Your task to perform on an android device: Open calendar and show me the second week of next month Image 0: 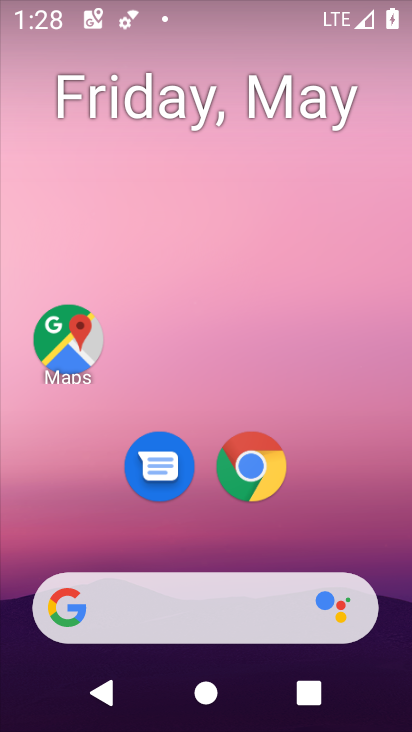
Step 0: drag from (365, 501) to (393, 3)
Your task to perform on an android device: Open calendar and show me the second week of next month Image 1: 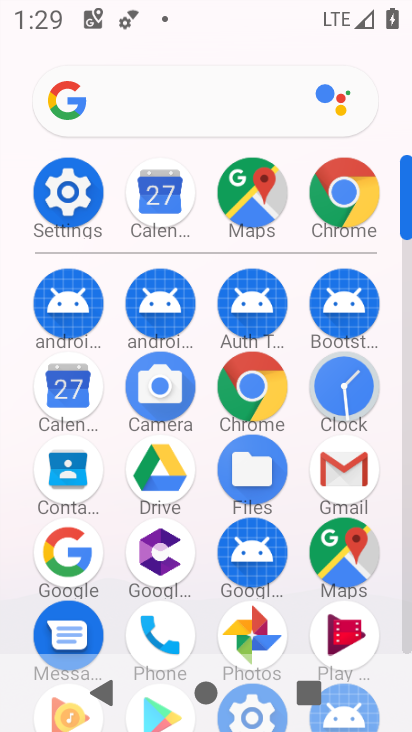
Step 1: click (51, 216)
Your task to perform on an android device: Open calendar and show me the second week of next month Image 2: 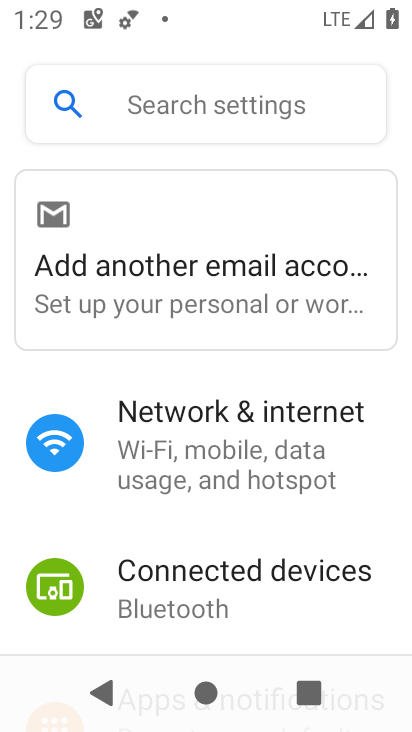
Step 2: click (206, 437)
Your task to perform on an android device: Open calendar and show me the second week of next month Image 3: 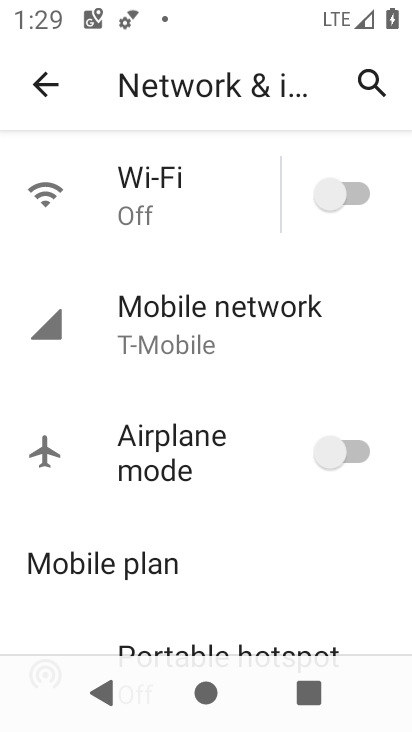
Step 3: press home button
Your task to perform on an android device: Open calendar and show me the second week of next month Image 4: 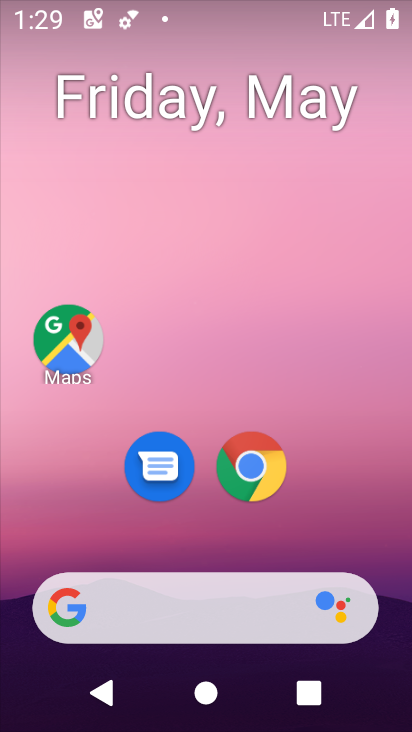
Step 4: drag from (349, 519) to (394, 48)
Your task to perform on an android device: Open calendar and show me the second week of next month Image 5: 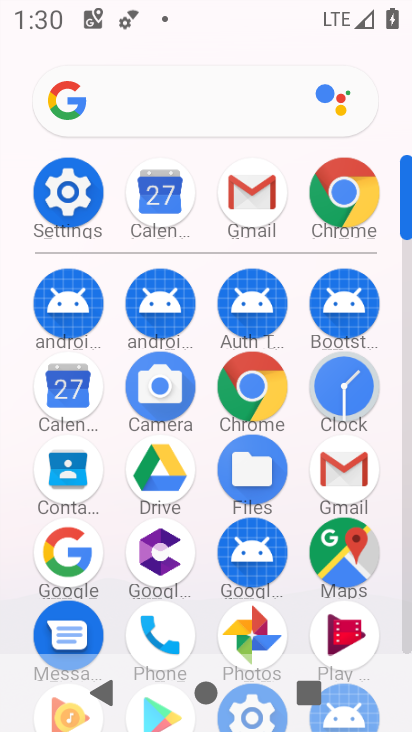
Step 5: click (65, 378)
Your task to perform on an android device: Open calendar and show me the second week of next month Image 6: 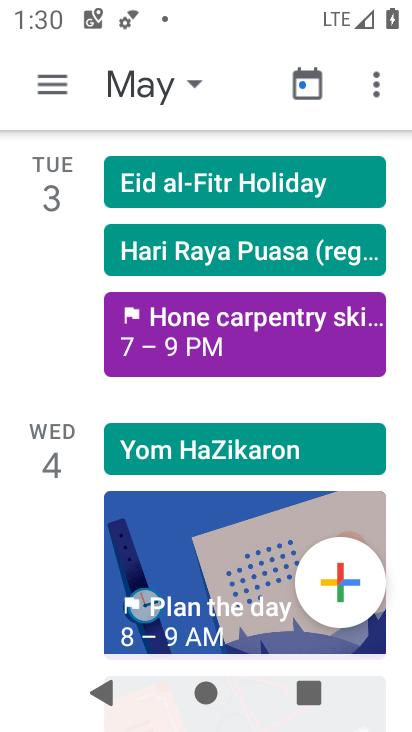
Step 6: click (161, 101)
Your task to perform on an android device: Open calendar and show me the second week of next month Image 7: 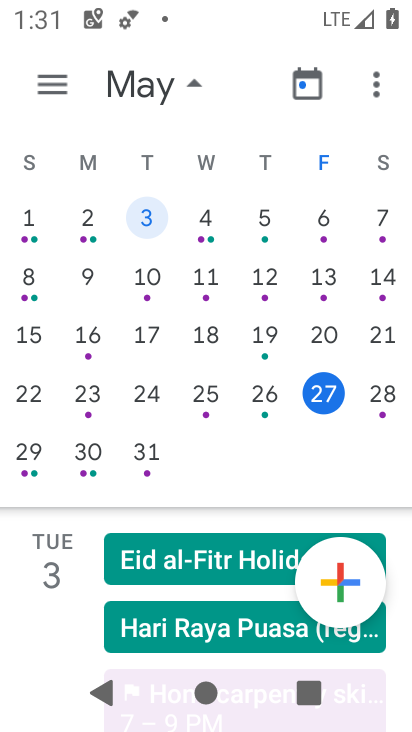
Step 7: task complete